Your task to perform on an android device: Open the stopwatch Image 0: 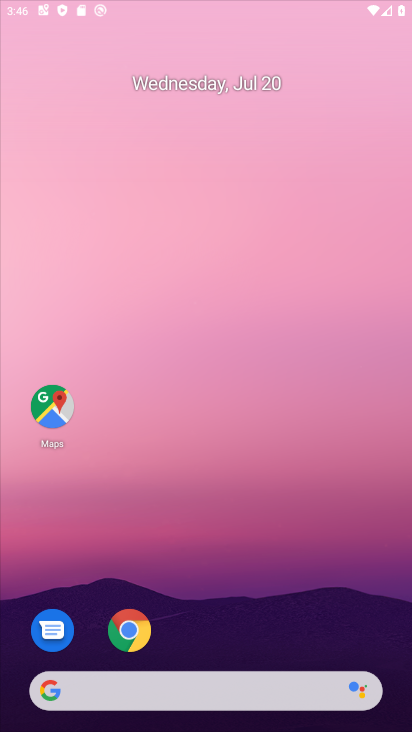
Step 0: click (125, 628)
Your task to perform on an android device: Open the stopwatch Image 1: 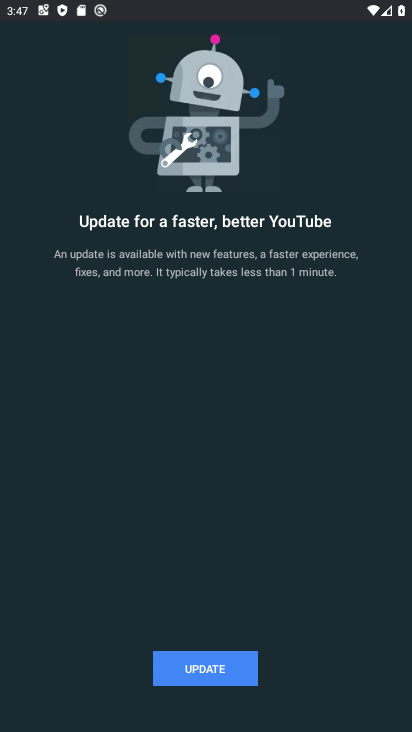
Step 1: press home button
Your task to perform on an android device: Open the stopwatch Image 2: 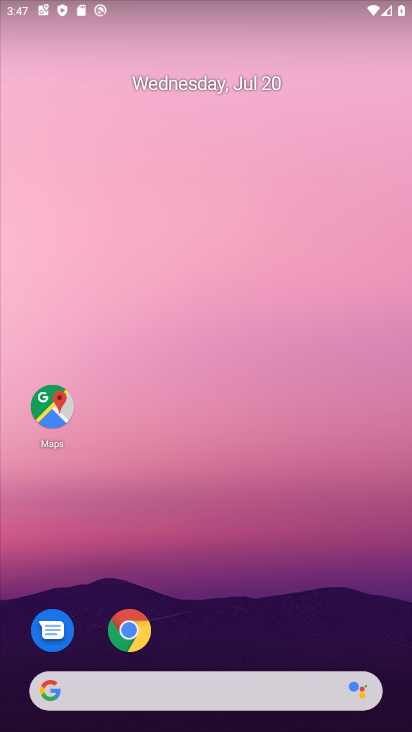
Step 2: drag from (35, 629) to (249, 171)
Your task to perform on an android device: Open the stopwatch Image 3: 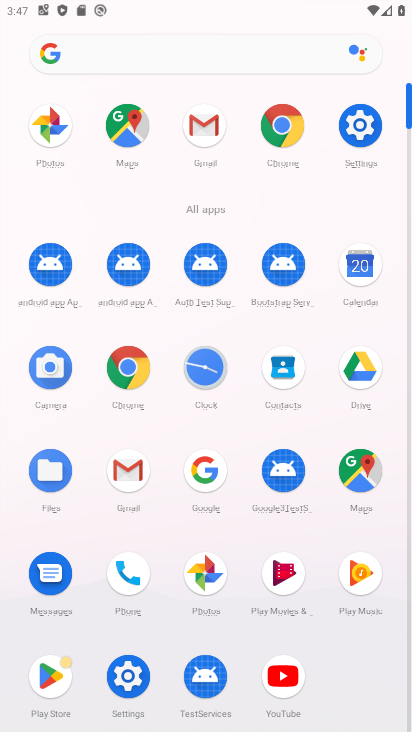
Step 3: click (202, 374)
Your task to perform on an android device: Open the stopwatch Image 4: 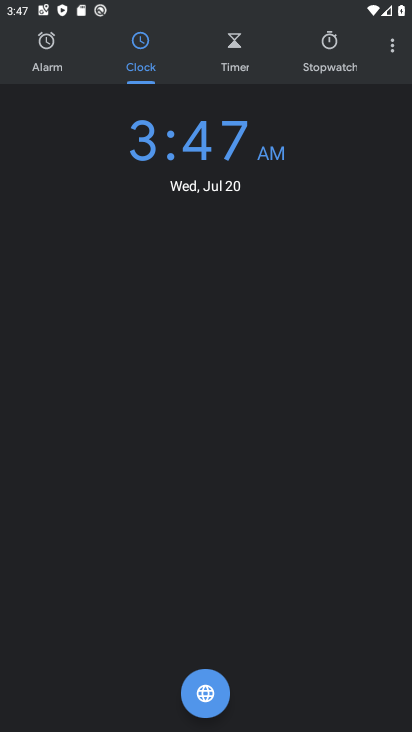
Step 4: click (334, 60)
Your task to perform on an android device: Open the stopwatch Image 5: 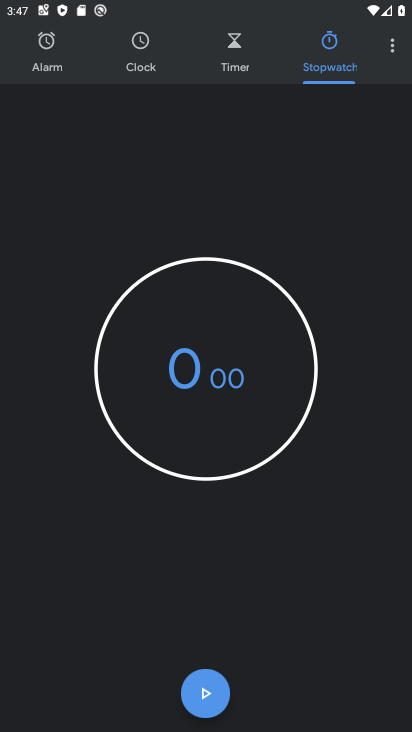
Step 5: click (228, 400)
Your task to perform on an android device: Open the stopwatch Image 6: 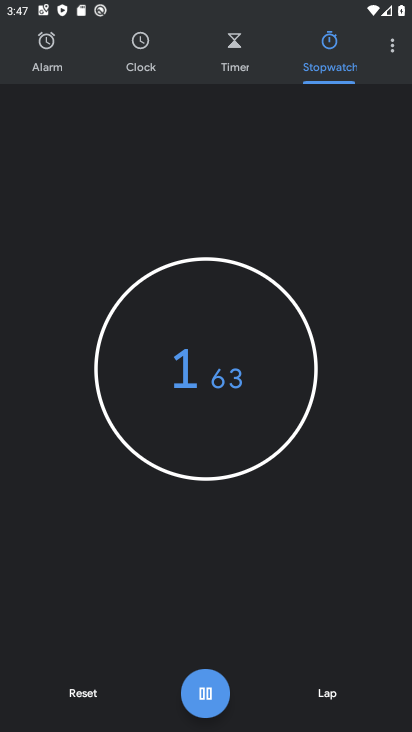
Step 6: click (219, 383)
Your task to perform on an android device: Open the stopwatch Image 7: 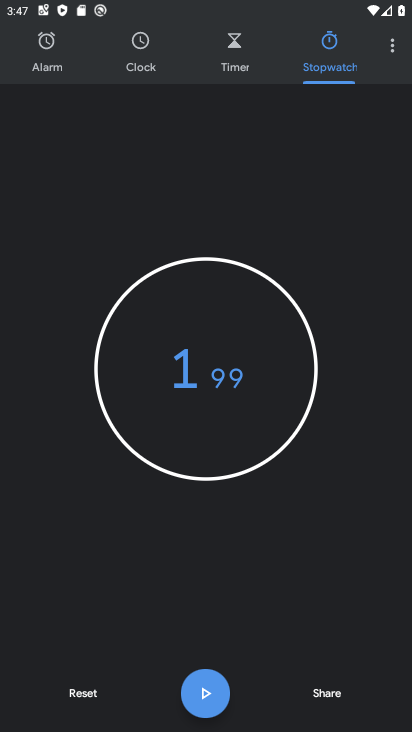
Step 7: task complete